Your task to perform on an android device: What's on my calendar tomorrow? Image 0: 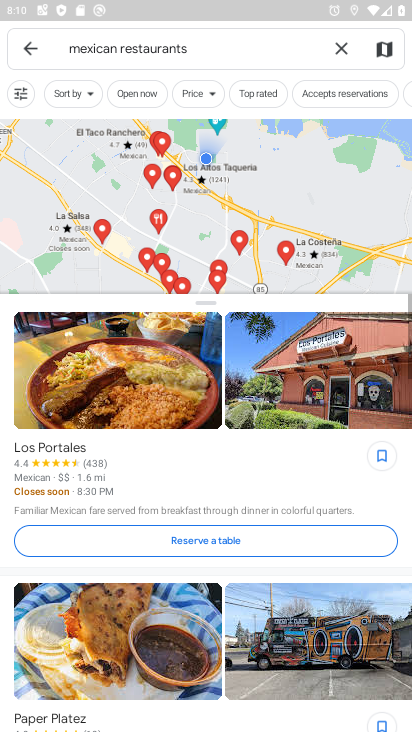
Step 0: press home button
Your task to perform on an android device: What's on my calendar tomorrow? Image 1: 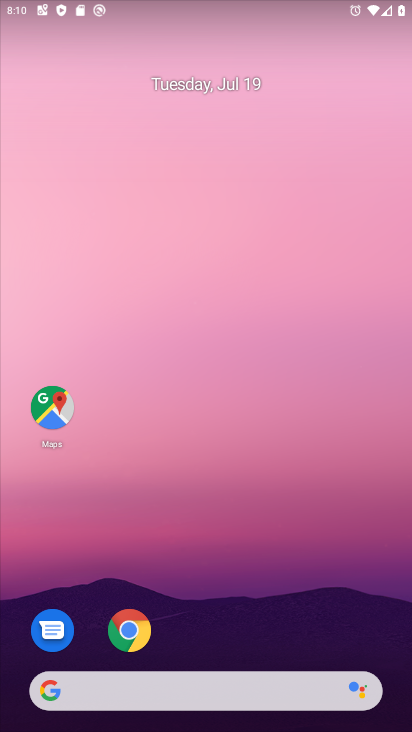
Step 1: drag from (212, 610) to (226, 205)
Your task to perform on an android device: What's on my calendar tomorrow? Image 2: 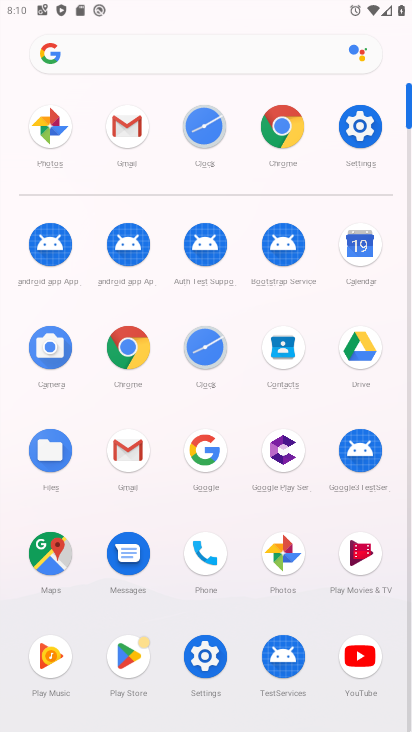
Step 2: click (358, 261)
Your task to perform on an android device: What's on my calendar tomorrow? Image 3: 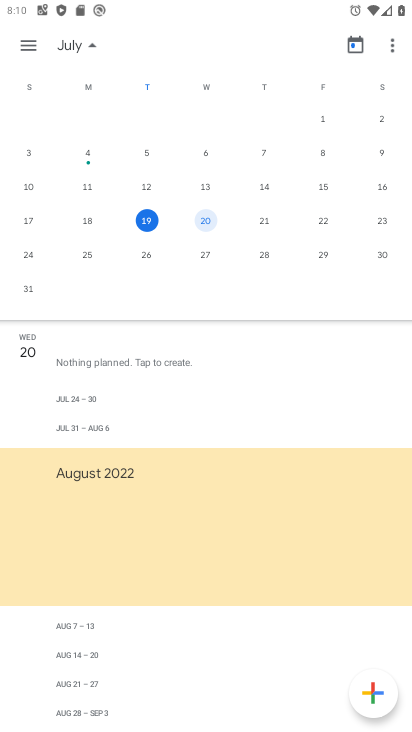
Step 3: click (211, 222)
Your task to perform on an android device: What's on my calendar tomorrow? Image 4: 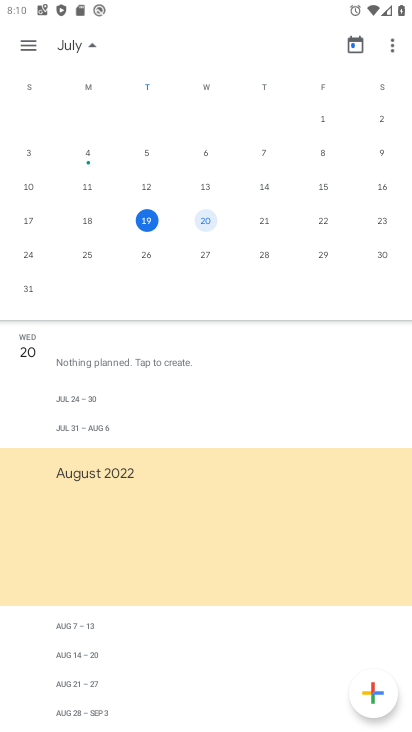
Step 4: click (211, 222)
Your task to perform on an android device: What's on my calendar tomorrow? Image 5: 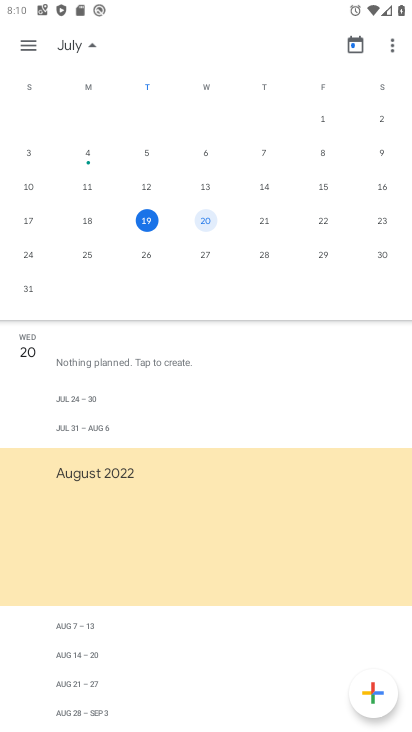
Step 5: task complete